Your task to perform on an android device: delete the emails in spam in the gmail app Image 0: 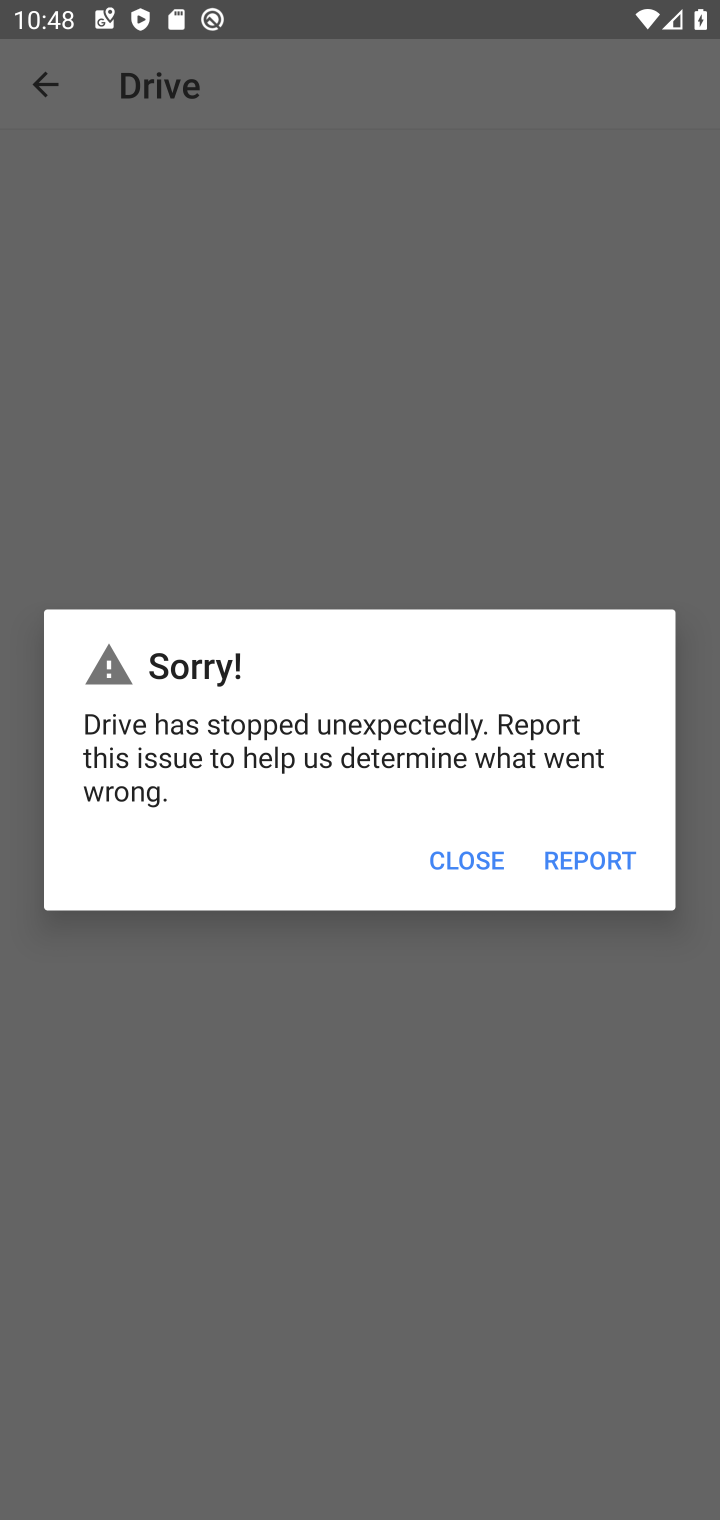
Step 0: press back button
Your task to perform on an android device: delete the emails in spam in the gmail app Image 1: 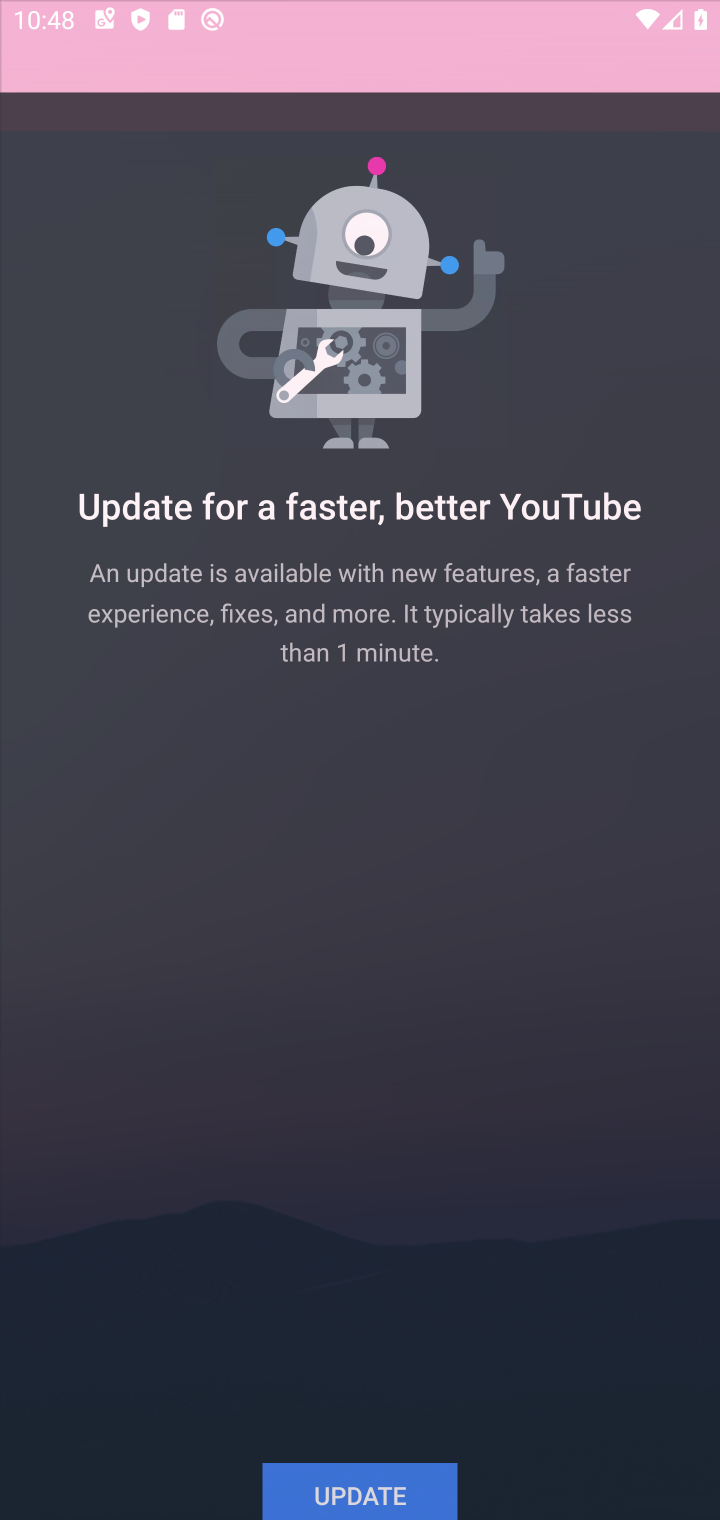
Step 1: press home button
Your task to perform on an android device: delete the emails in spam in the gmail app Image 2: 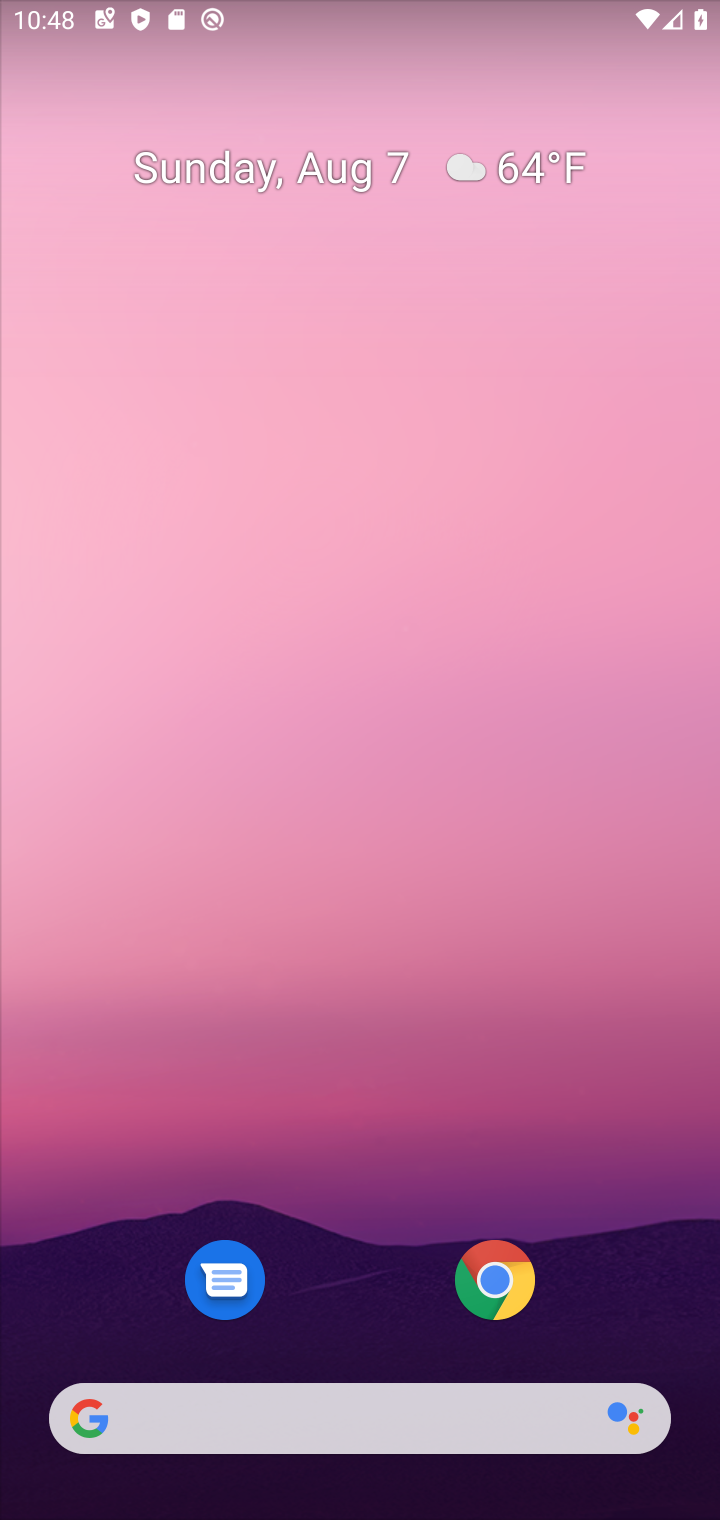
Step 2: drag from (354, 1075) to (562, 4)
Your task to perform on an android device: delete the emails in spam in the gmail app Image 3: 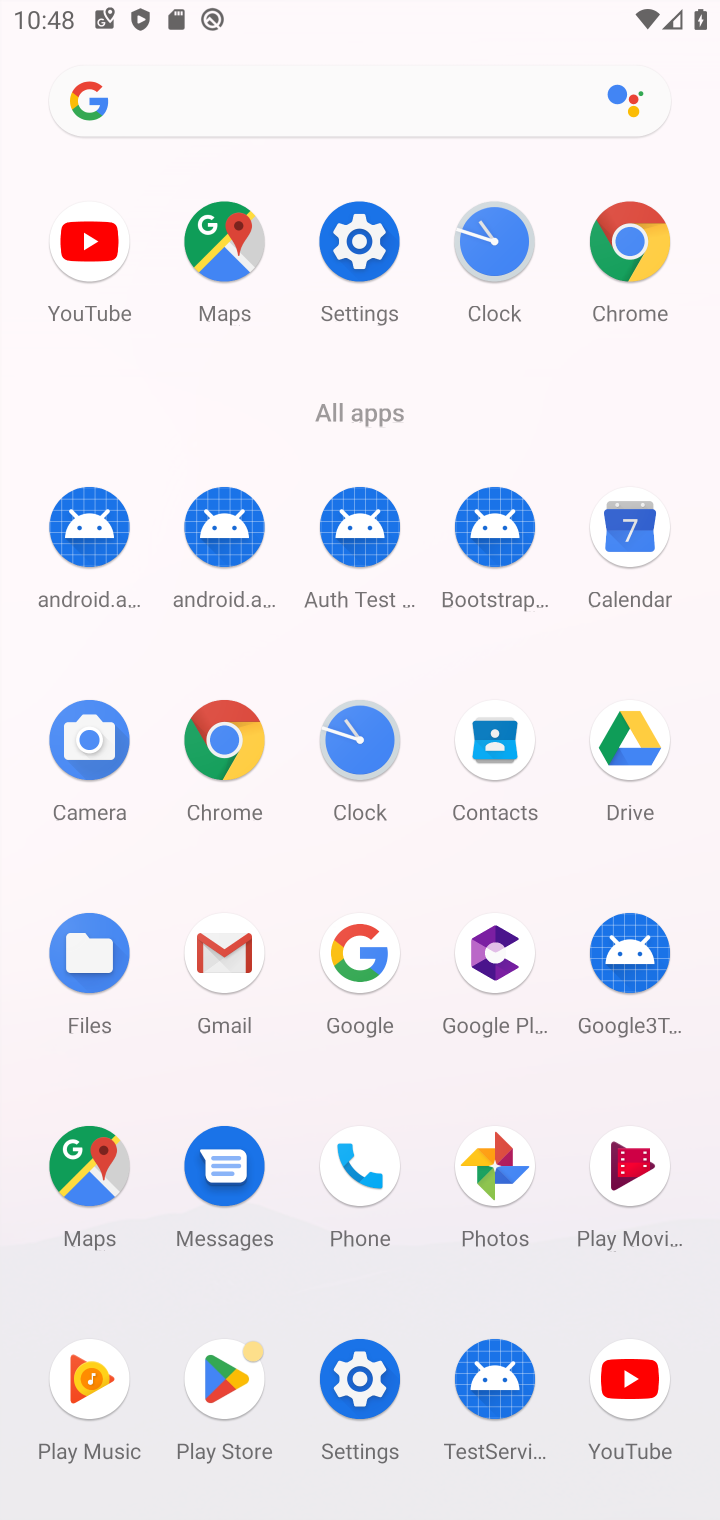
Step 3: click (214, 952)
Your task to perform on an android device: delete the emails in spam in the gmail app Image 4: 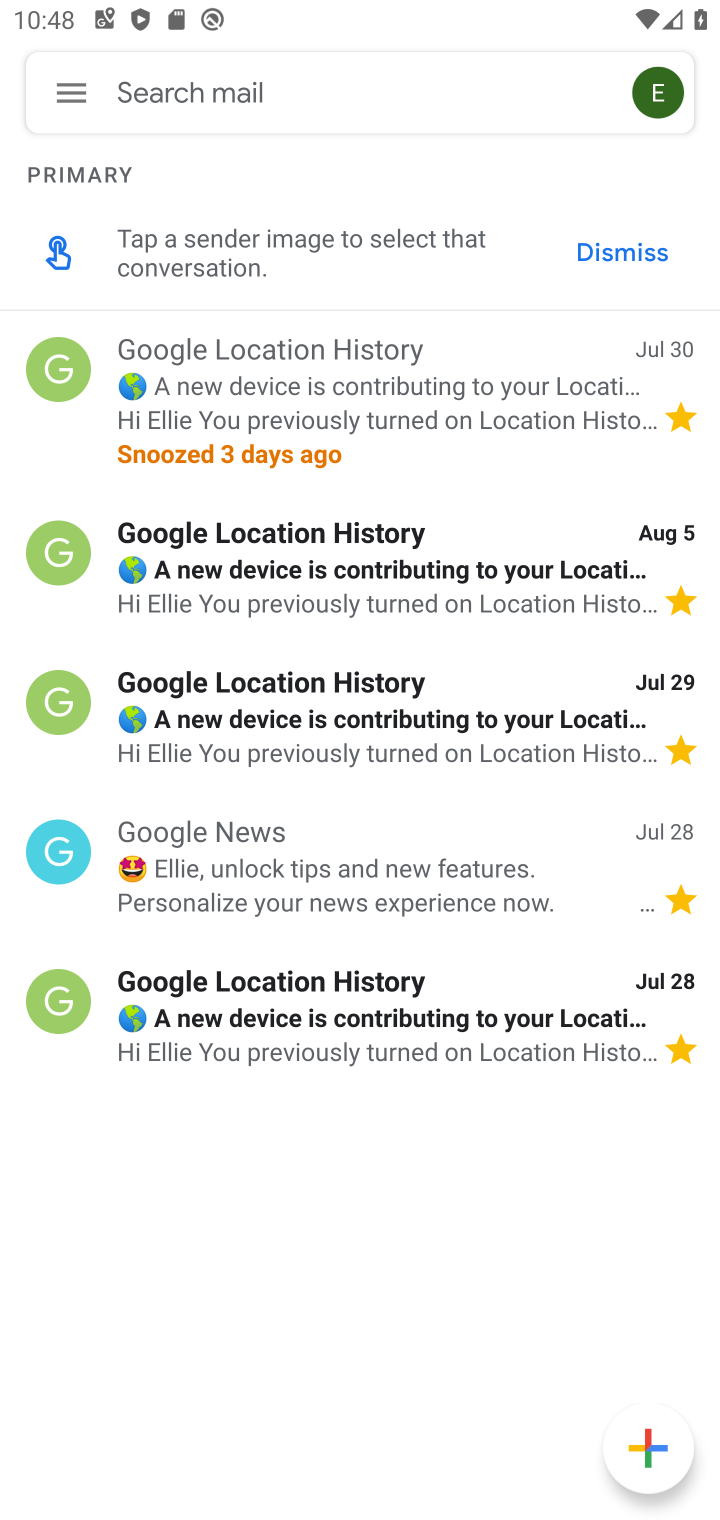
Step 4: click (67, 77)
Your task to perform on an android device: delete the emails in spam in the gmail app Image 5: 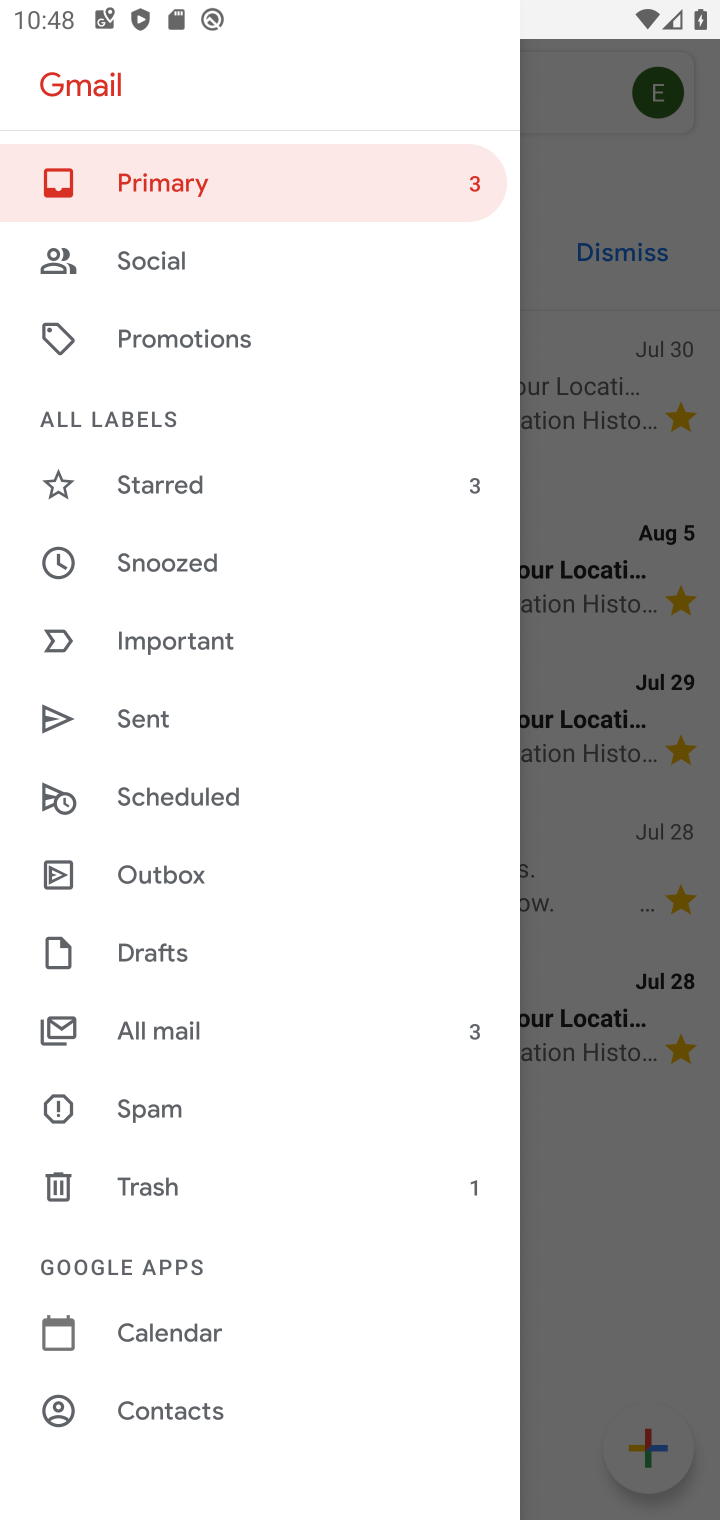
Step 5: click (167, 1106)
Your task to perform on an android device: delete the emails in spam in the gmail app Image 6: 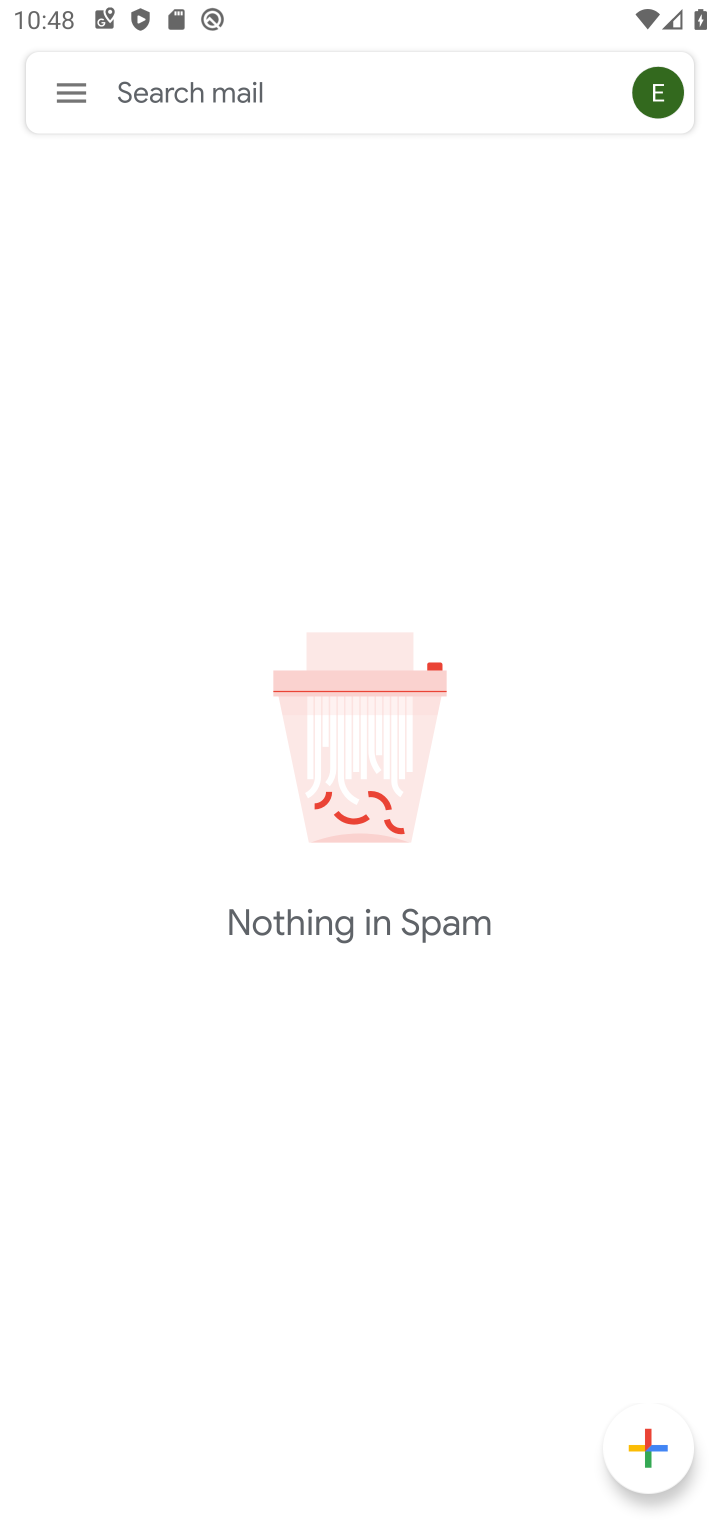
Step 6: task complete